Your task to perform on an android device: Go to network settings Image 0: 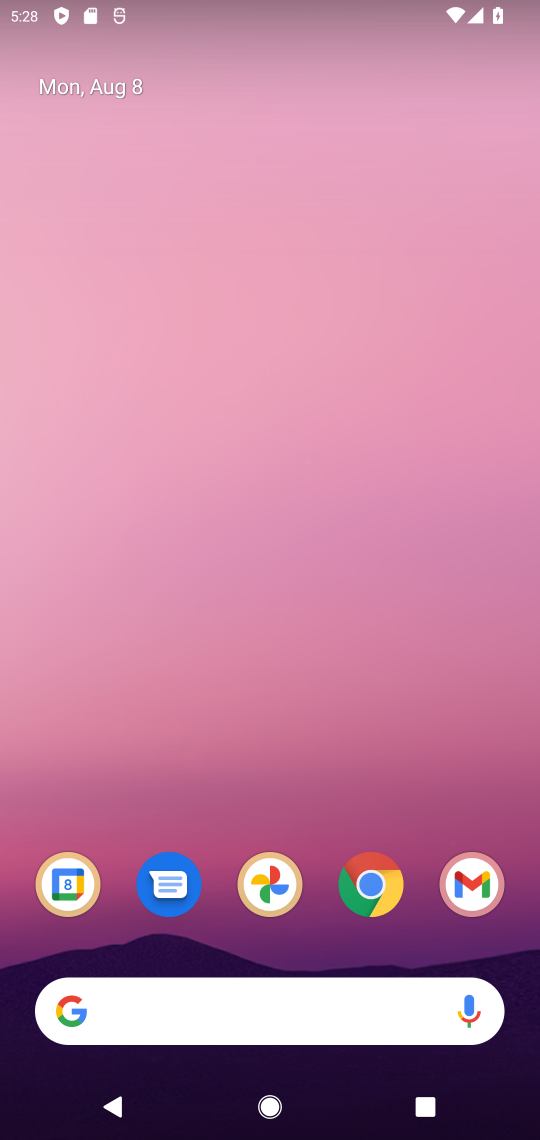
Step 0: drag from (314, 832) to (270, 111)
Your task to perform on an android device: Go to network settings Image 1: 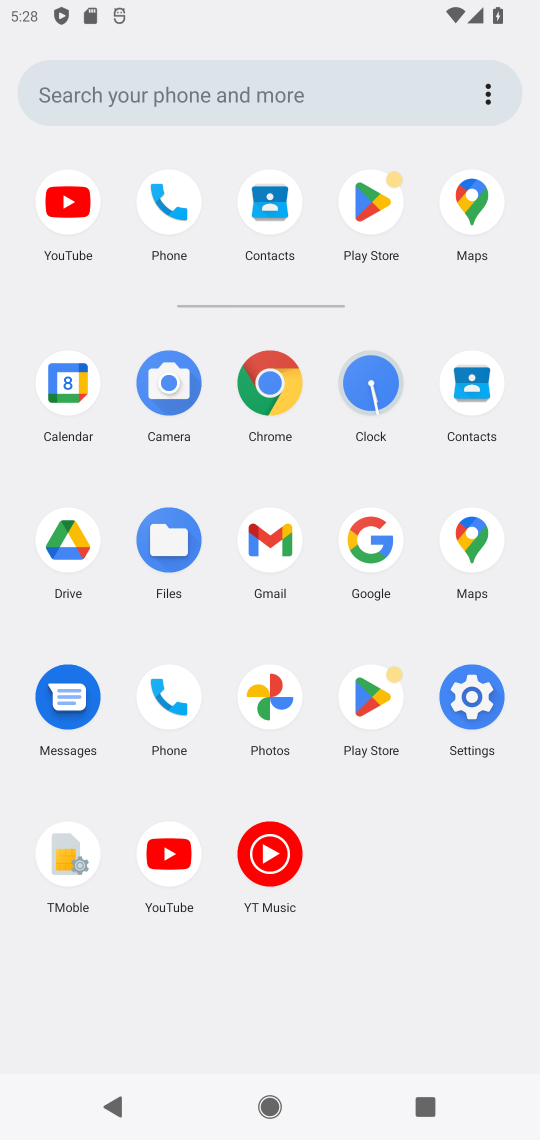
Step 1: click (487, 731)
Your task to perform on an android device: Go to network settings Image 2: 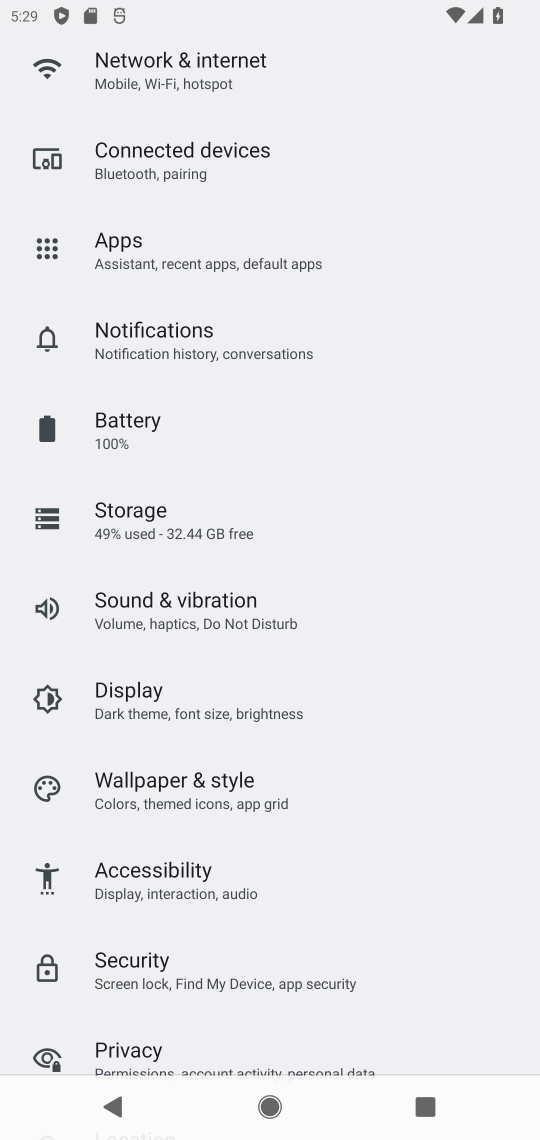
Step 2: click (220, 74)
Your task to perform on an android device: Go to network settings Image 3: 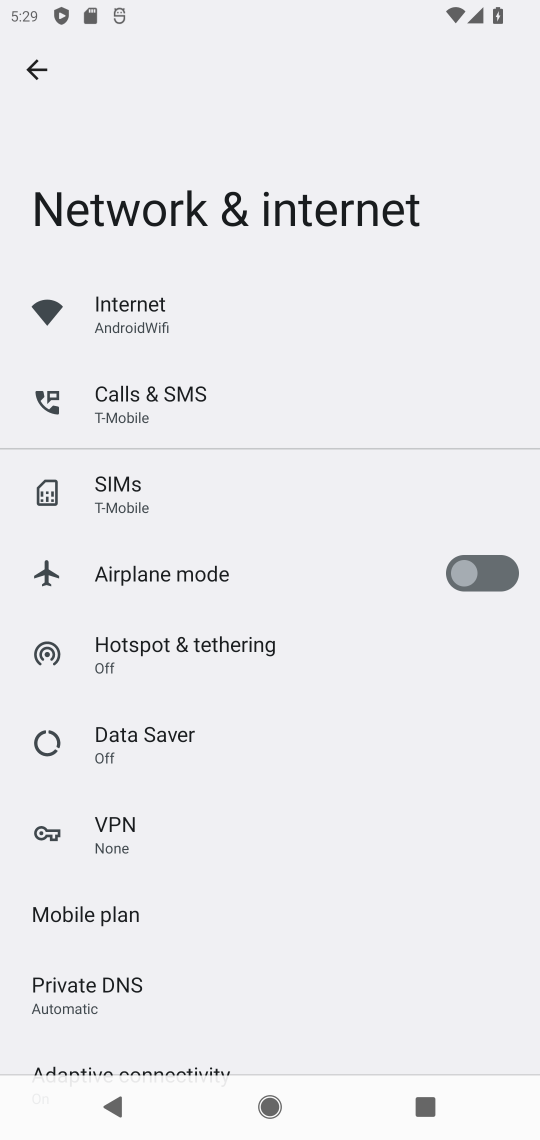
Step 3: task complete